Your task to perform on an android device: change notifications settings Image 0: 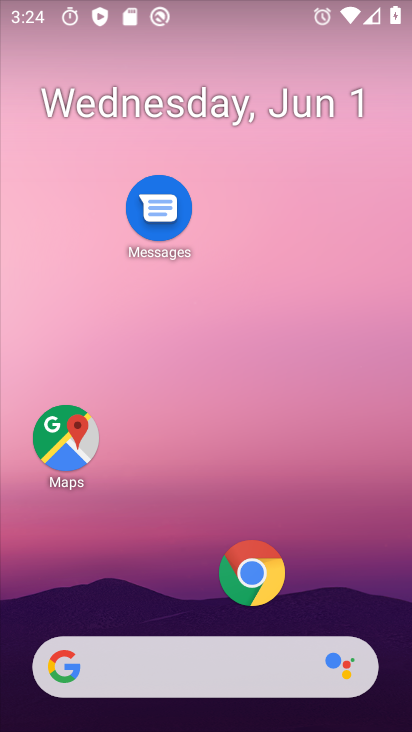
Step 0: drag from (178, 609) to (174, 283)
Your task to perform on an android device: change notifications settings Image 1: 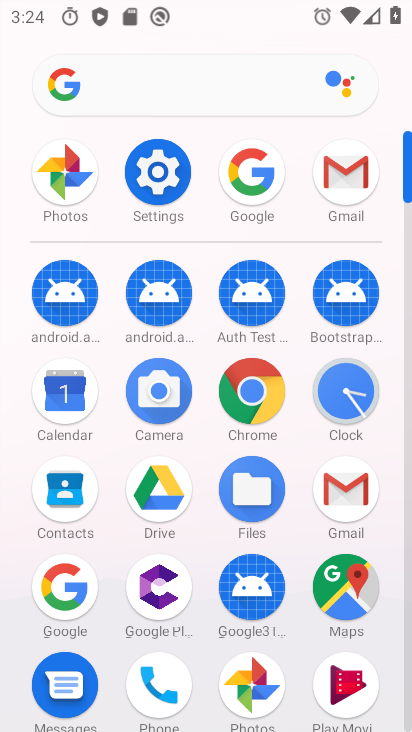
Step 1: click (153, 203)
Your task to perform on an android device: change notifications settings Image 2: 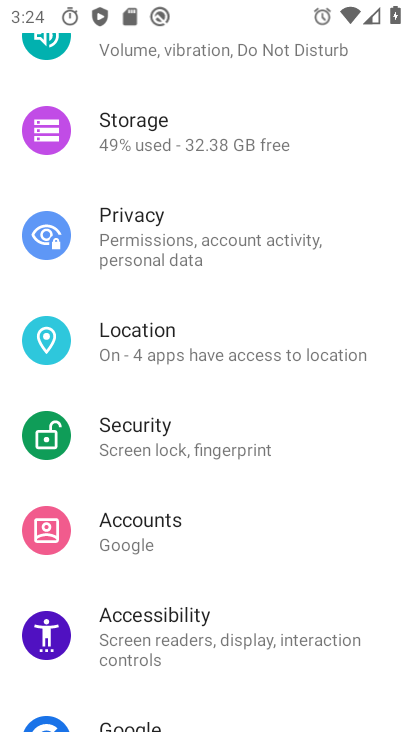
Step 2: drag from (176, 208) to (201, 473)
Your task to perform on an android device: change notifications settings Image 3: 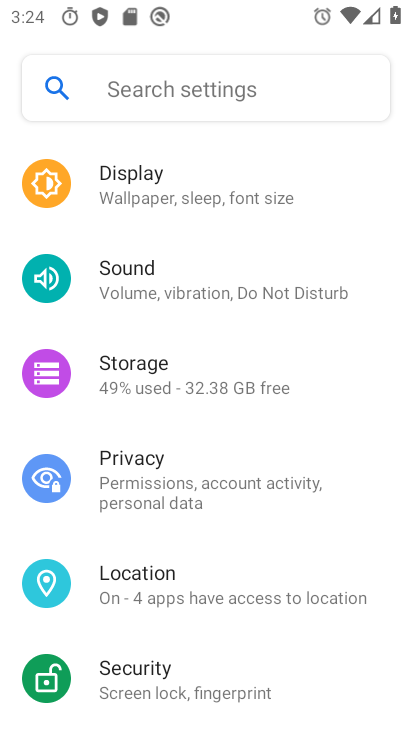
Step 3: drag from (205, 266) to (239, 485)
Your task to perform on an android device: change notifications settings Image 4: 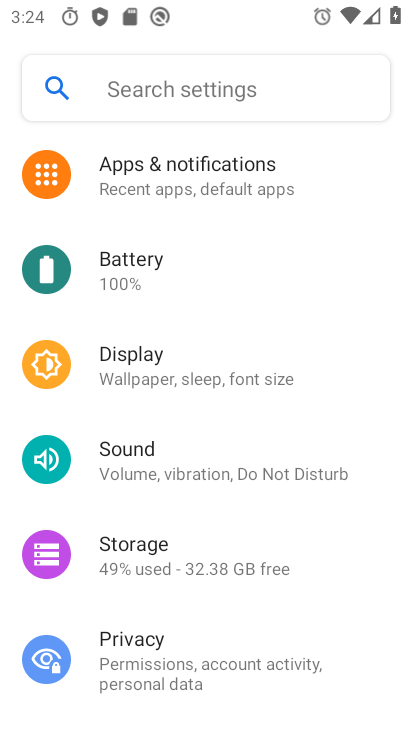
Step 4: click (202, 203)
Your task to perform on an android device: change notifications settings Image 5: 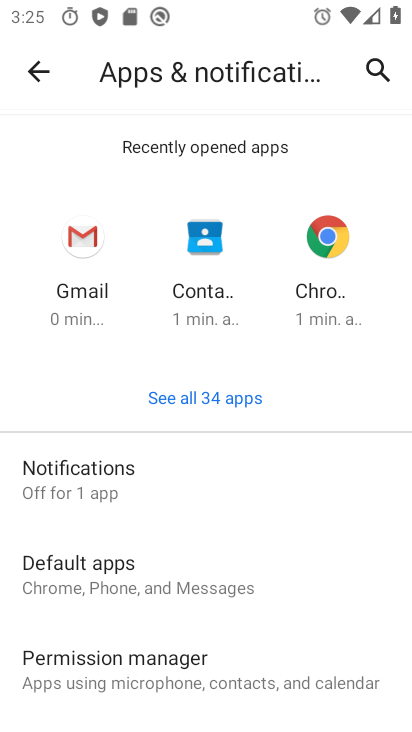
Step 5: click (184, 479)
Your task to perform on an android device: change notifications settings Image 6: 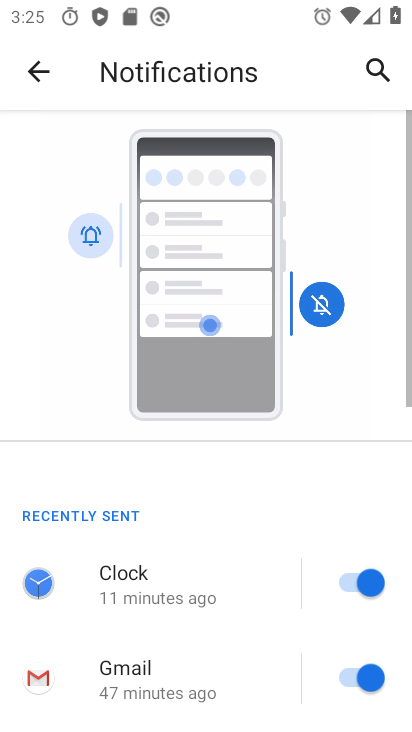
Step 6: drag from (227, 631) to (248, 167)
Your task to perform on an android device: change notifications settings Image 7: 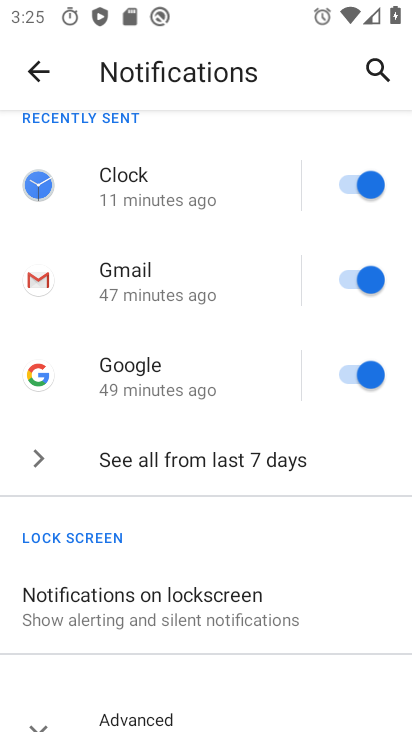
Step 7: click (263, 622)
Your task to perform on an android device: change notifications settings Image 8: 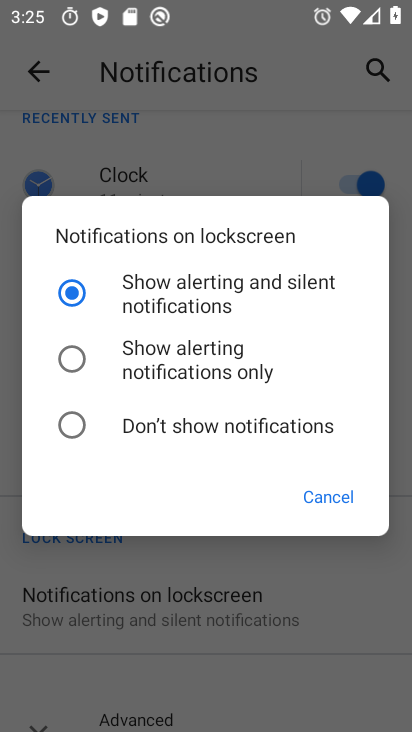
Step 8: click (254, 423)
Your task to perform on an android device: change notifications settings Image 9: 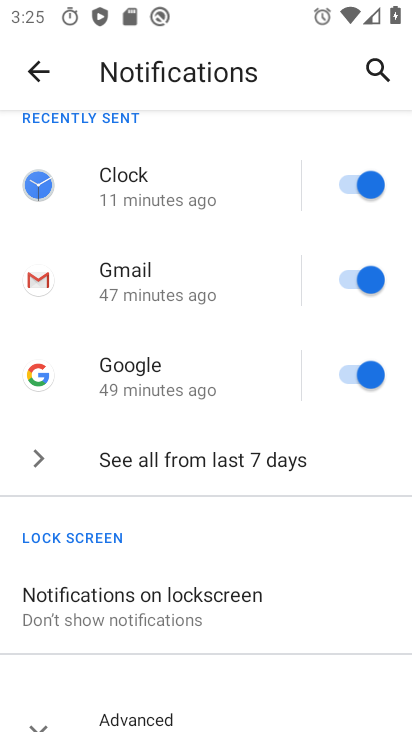
Step 9: task complete